Your task to perform on an android device: turn off notifications in google photos Image 0: 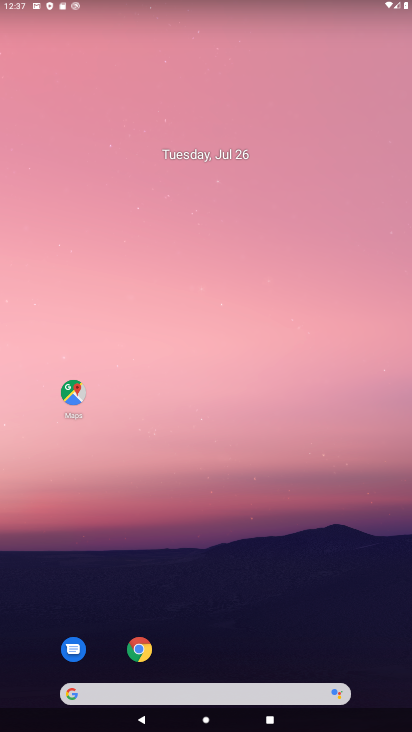
Step 0: drag from (270, 648) to (248, 97)
Your task to perform on an android device: turn off notifications in google photos Image 1: 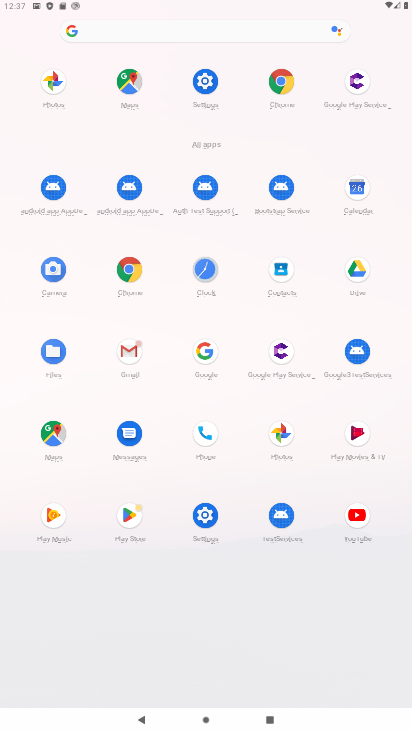
Step 1: click (284, 439)
Your task to perform on an android device: turn off notifications in google photos Image 2: 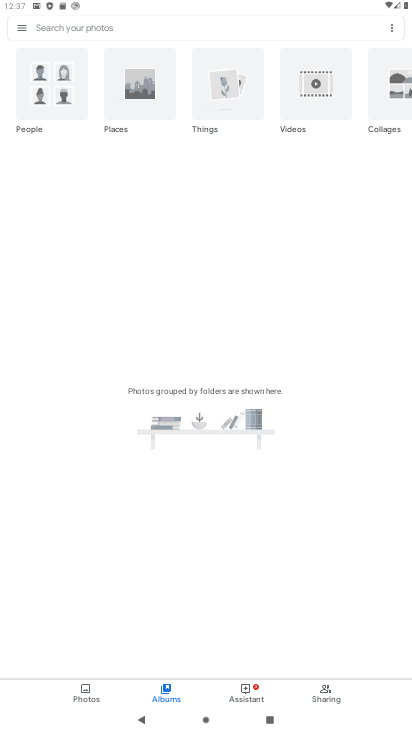
Step 2: click (18, 26)
Your task to perform on an android device: turn off notifications in google photos Image 3: 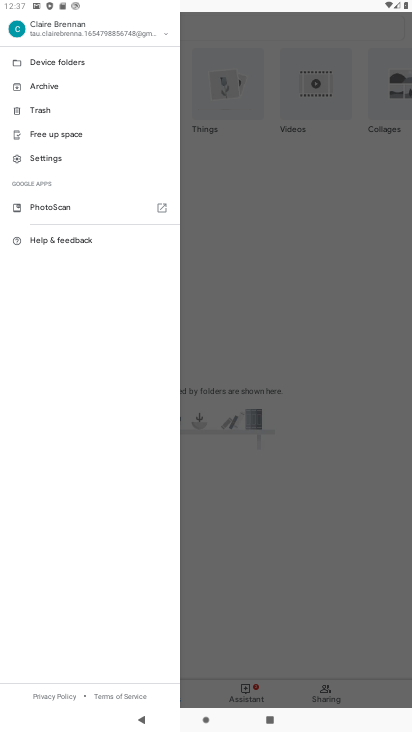
Step 3: click (35, 161)
Your task to perform on an android device: turn off notifications in google photos Image 4: 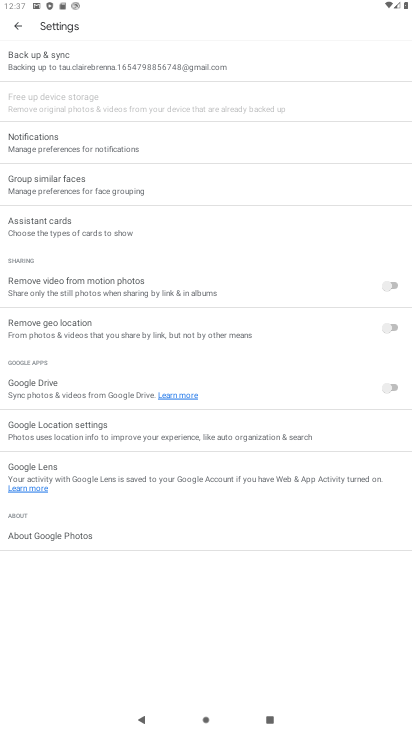
Step 4: click (66, 142)
Your task to perform on an android device: turn off notifications in google photos Image 5: 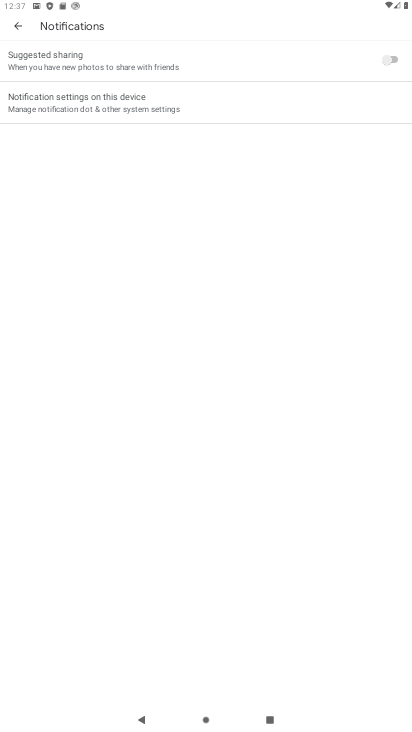
Step 5: click (361, 87)
Your task to perform on an android device: turn off notifications in google photos Image 6: 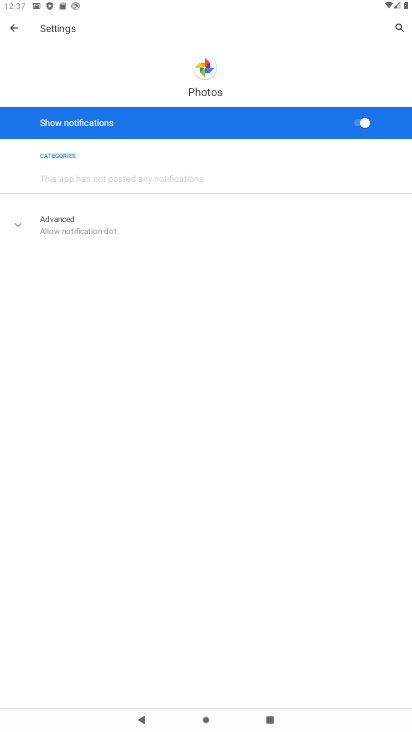
Step 6: click (365, 123)
Your task to perform on an android device: turn off notifications in google photos Image 7: 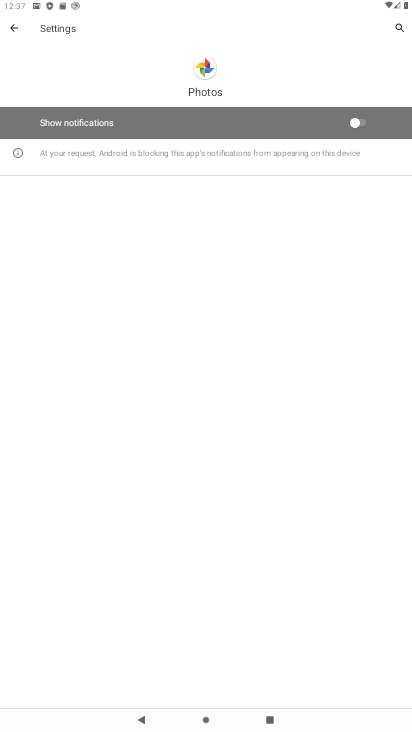
Step 7: task complete